Your task to perform on an android device: turn off location Image 0: 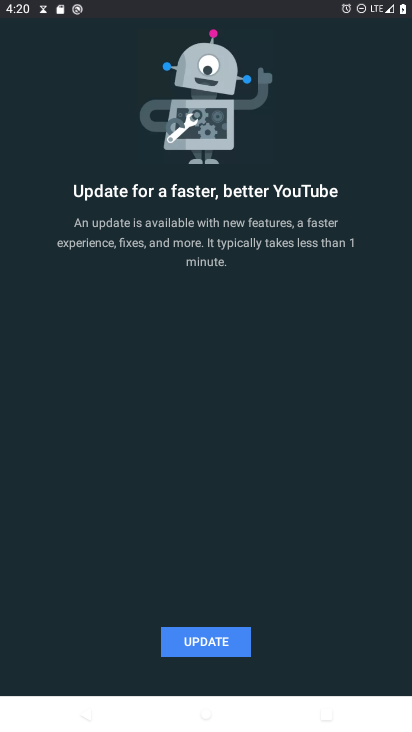
Step 0: press home button
Your task to perform on an android device: turn off location Image 1: 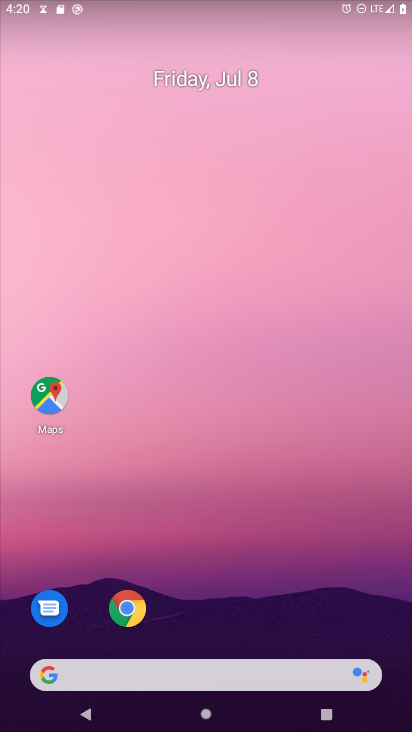
Step 1: drag from (343, 640) to (317, 92)
Your task to perform on an android device: turn off location Image 2: 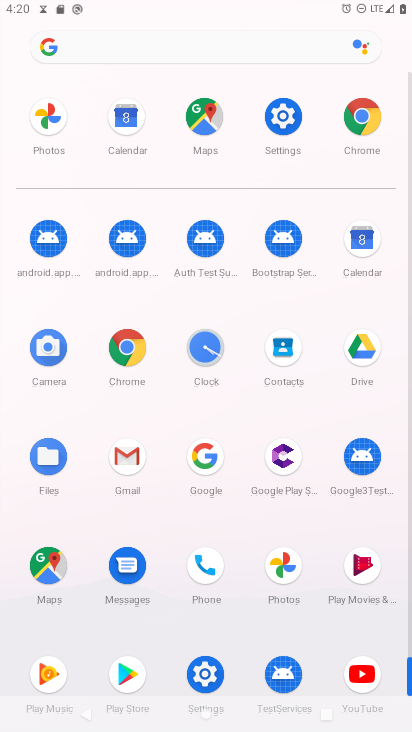
Step 2: click (287, 116)
Your task to perform on an android device: turn off location Image 3: 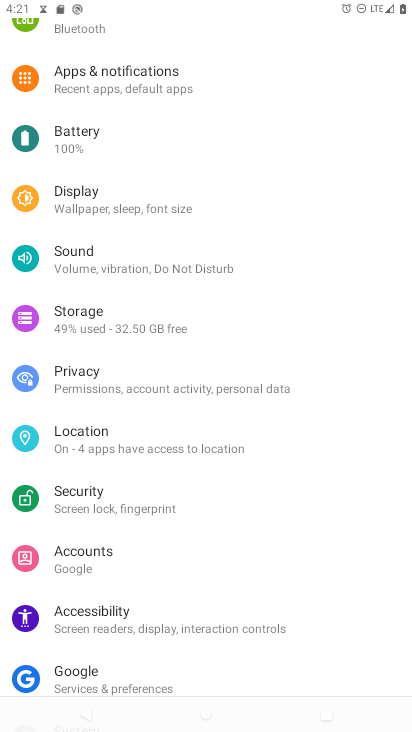
Step 3: click (118, 442)
Your task to perform on an android device: turn off location Image 4: 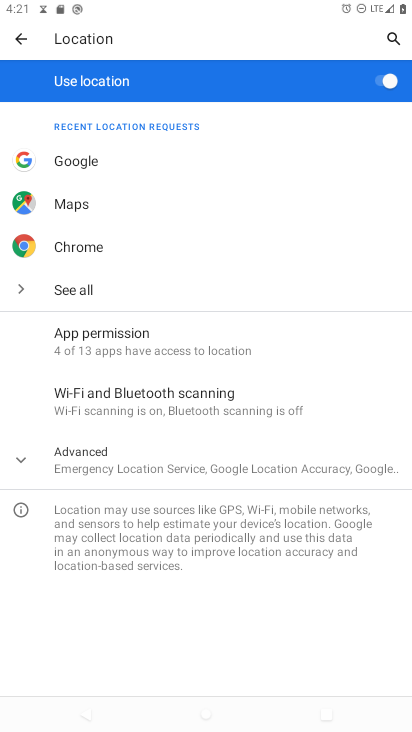
Step 4: click (369, 80)
Your task to perform on an android device: turn off location Image 5: 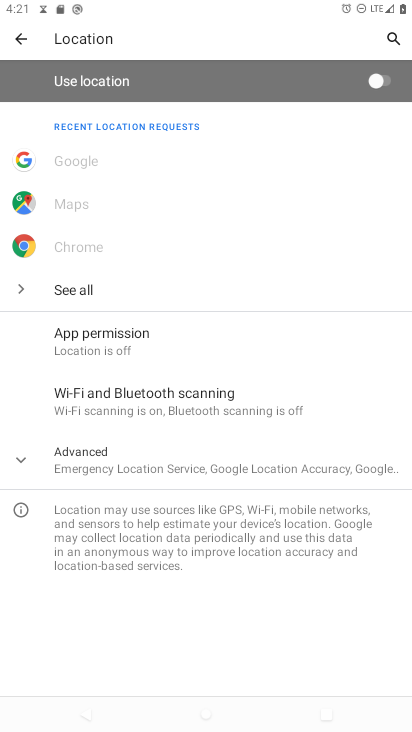
Step 5: task complete